Your task to perform on an android device: Open calendar and show me the fourth week of next month Image 0: 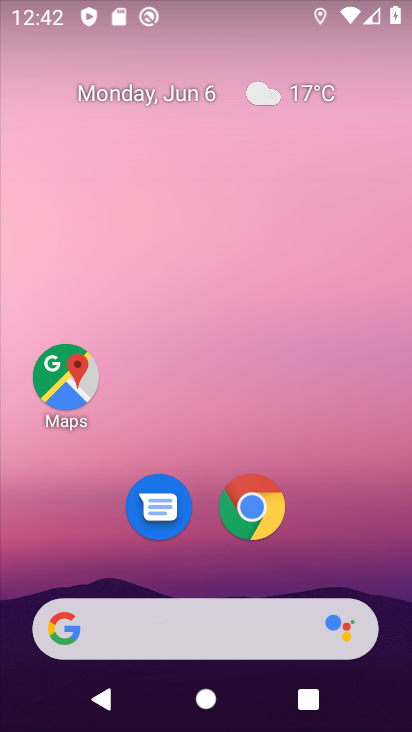
Step 0: drag from (389, 414) to (407, 143)
Your task to perform on an android device: Open calendar and show me the fourth week of next month Image 1: 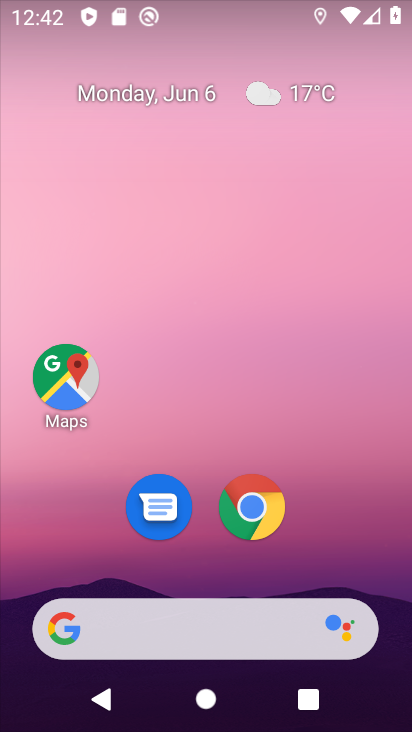
Step 1: drag from (325, 527) to (312, 40)
Your task to perform on an android device: Open calendar and show me the fourth week of next month Image 2: 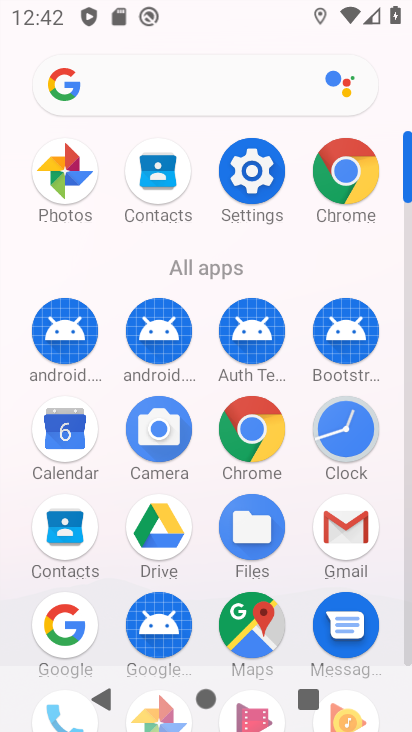
Step 2: click (76, 435)
Your task to perform on an android device: Open calendar and show me the fourth week of next month Image 3: 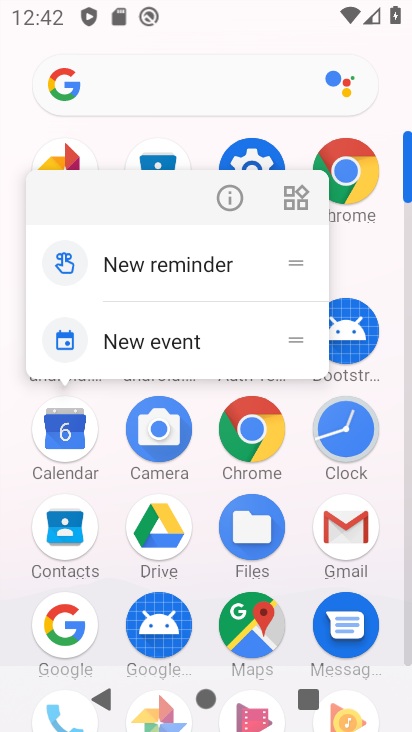
Step 3: click (64, 423)
Your task to perform on an android device: Open calendar and show me the fourth week of next month Image 4: 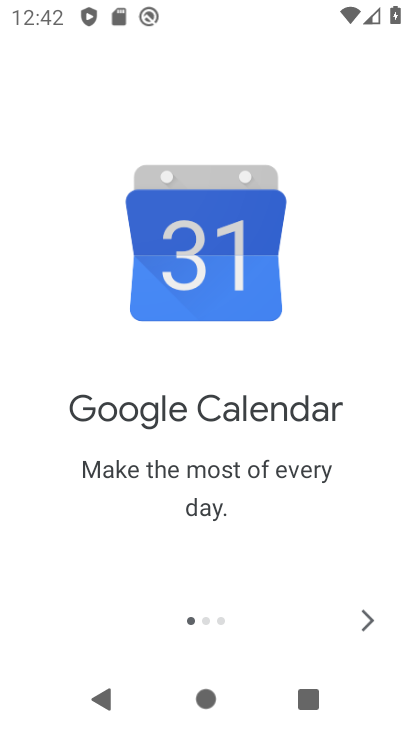
Step 4: click (363, 613)
Your task to perform on an android device: Open calendar and show me the fourth week of next month Image 5: 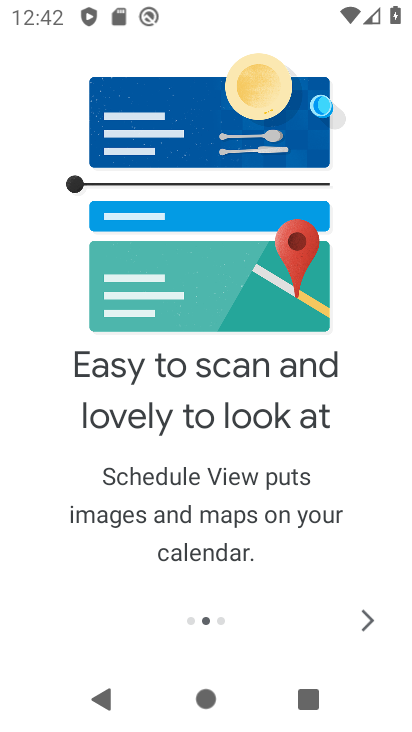
Step 5: click (363, 614)
Your task to perform on an android device: Open calendar and show me the fourth week of next month Image 6: 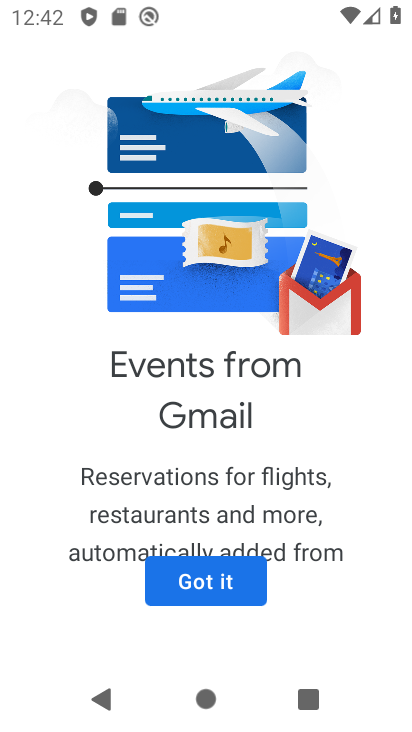
Step 6: click (251, 573)
Your task to perform on an android device: Open calendar and show me the fourth week of next month Image 7: 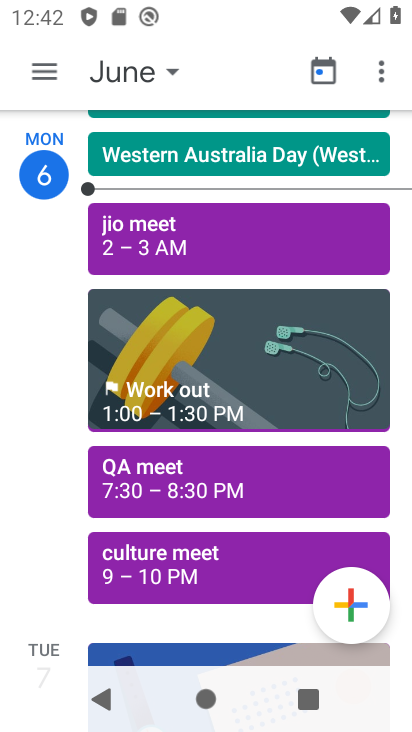
Step 7: click (37, 77)
Your task to perform on an android device: Open calendar and show me the fourth week of next month Image 8: 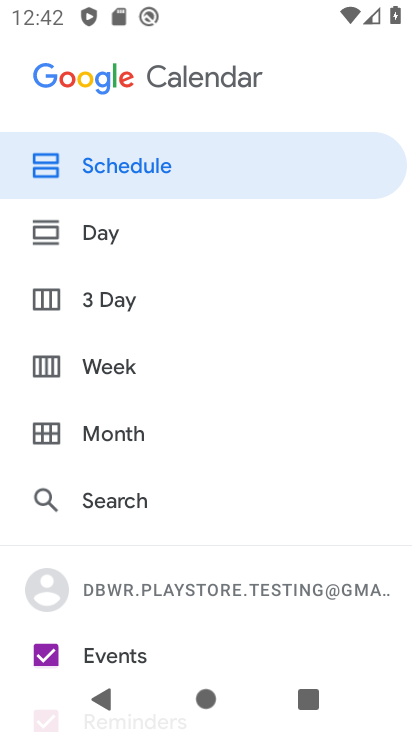
Step 8: click (47, 422)
Your task to perform on an android device: Open calendar and show me the fourth week of next month Image 9: 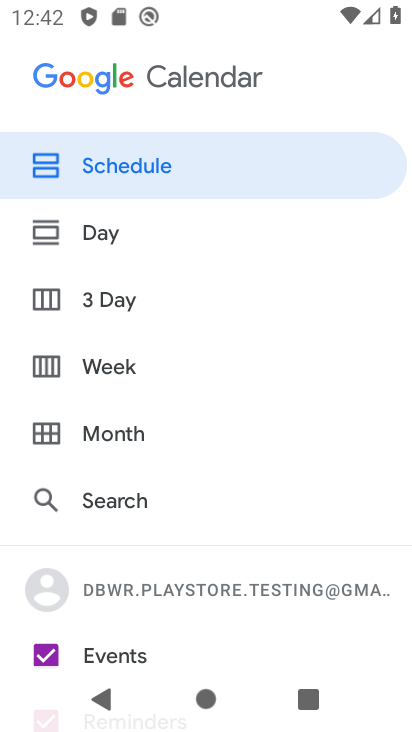
Step 9: click (47, 429)
Your task to perform on an android device: Open calendar and show me the fourth week of next month Image 10: 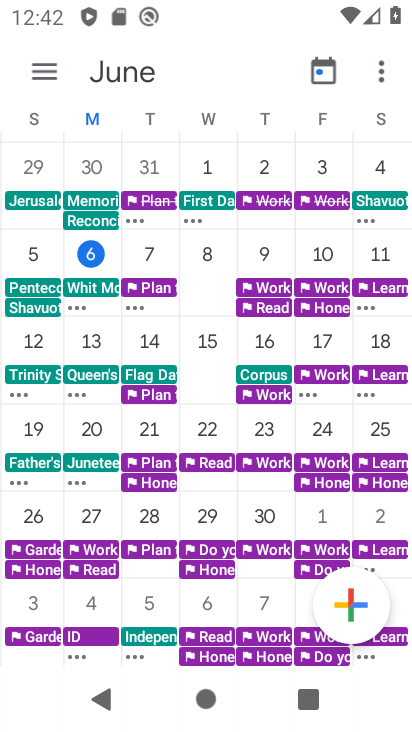
Step 10: drag from (374, 340) to (14, 291)
Your task to perform on an android device: Open calendar and show me the fourth week of next month Image 11: 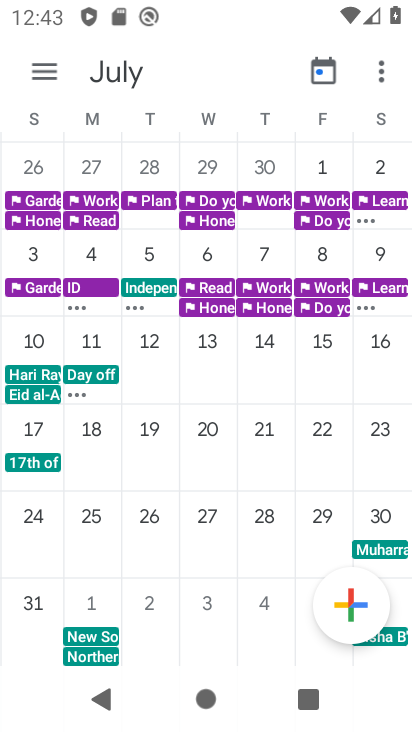
Step 11: click (39, 511)
Your task to perform on an android device: Open calendar and show me the fourth week of next month Image 12: 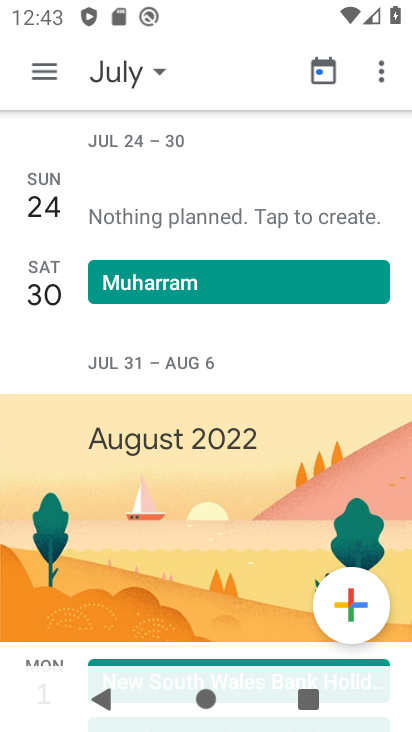
Step 12: click (43, 76)
Your task to perform on an android device: Open calendar and show me the fourth week of next month Image 13: 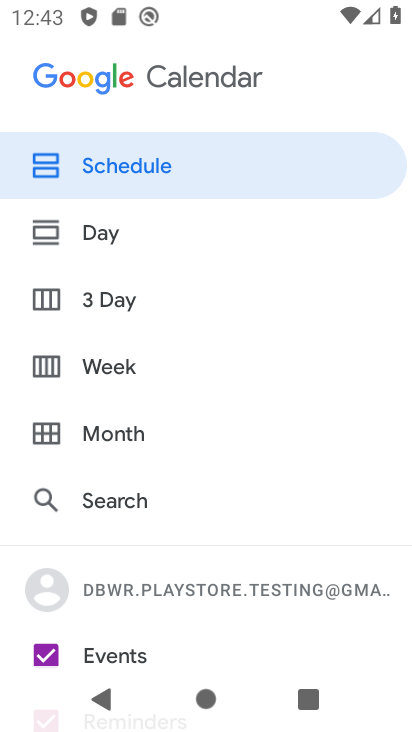
Step 13: click (42, 364)
Your task to perform on an android device: Open calendar and show me the fourth week of next month Image 14: 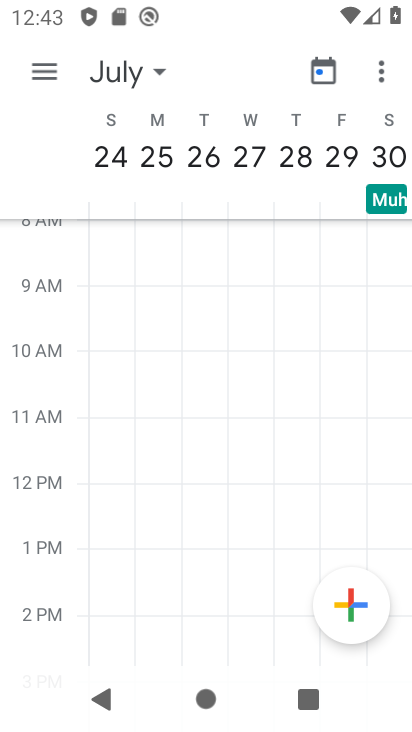
Step 14: task complete